Your task to perform on an android device: Is it going to rain today? Image 0: 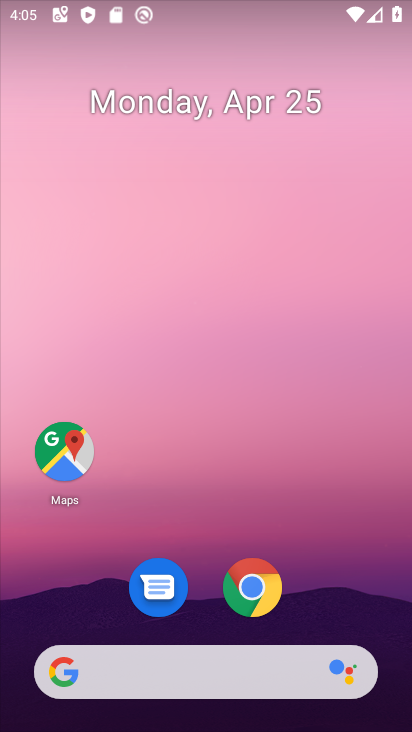
Step 0: click (119, 672)
Your task to perform on an android device: Is it going to rain today? Image 1: 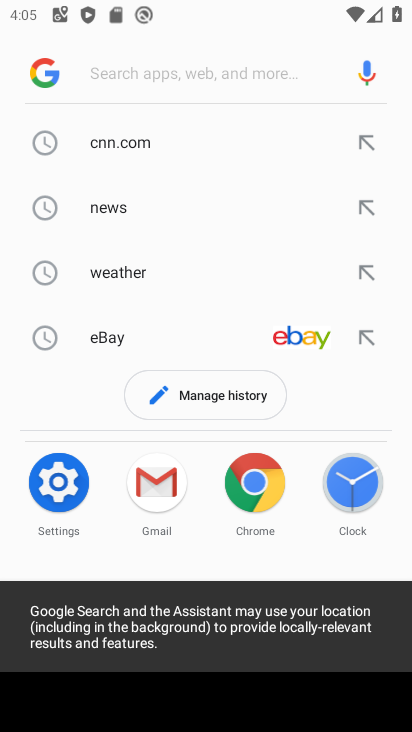
Step 1: click (103, 289)
Your task to perform on an android device: Is it going to rain today? Image 2: 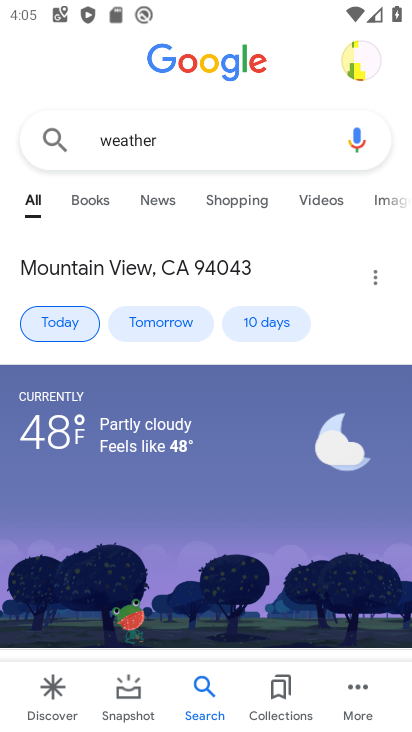
Step 2: task complete